Your task to perform on an android device: Turn on the flashlight Image 0: 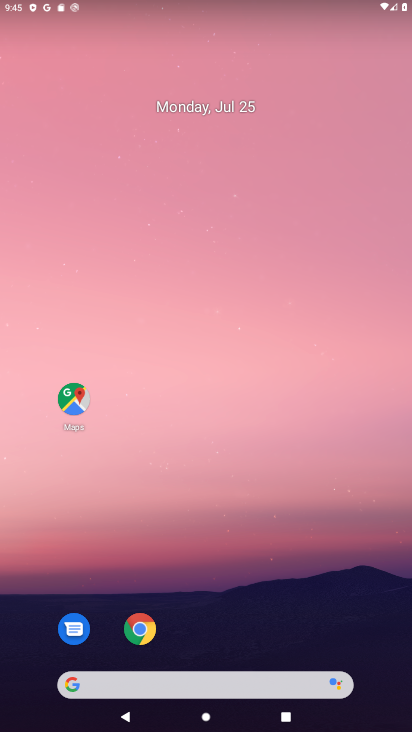
Step 0: drag from (223, 631) to (295, 192)
Your task to perform on an android device: Turn on the flashlight Image 1: 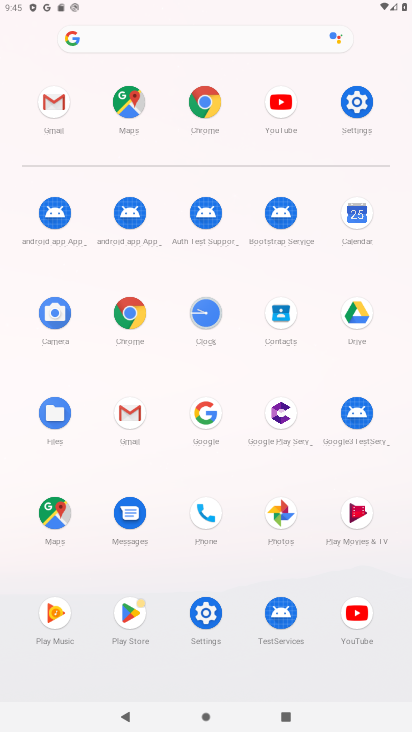
Step 1: click (358, 112)
Your task to perform on an android device: Turn on the flashlight Image 2: 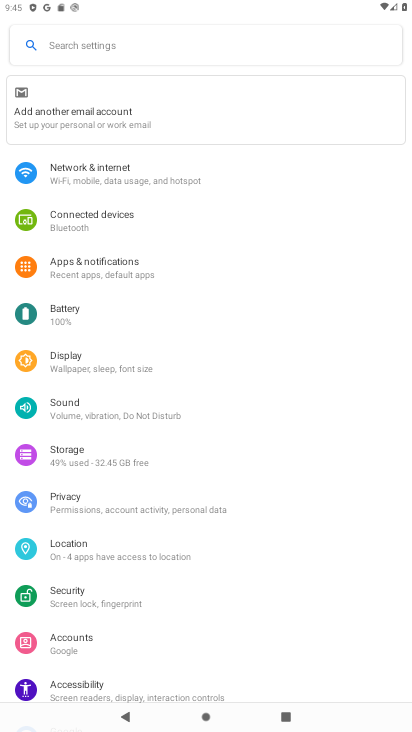
Step 2: task complete